Your task to perform on an android device: Clear the shopping cart on ebay.com. Search for "macbook" on ebay.com, select the first entry, add it to the cart, then select checkout. Image 0: 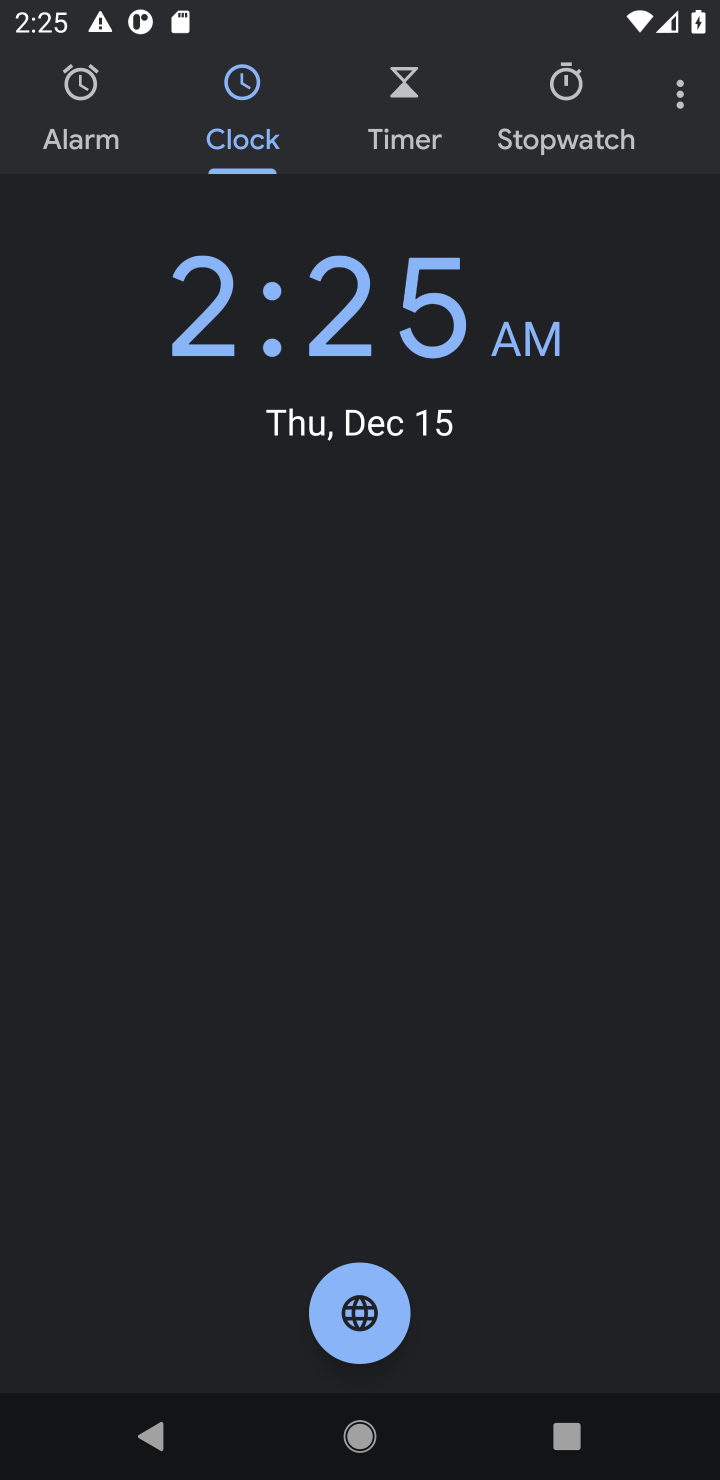
Step 0: press home button
Your task to perform on an android device: Clear the shopping cart on ebay.com. Search for "macbook" on ebay.com, select the first entry, add it to the cart, then select checkout. Image 1: 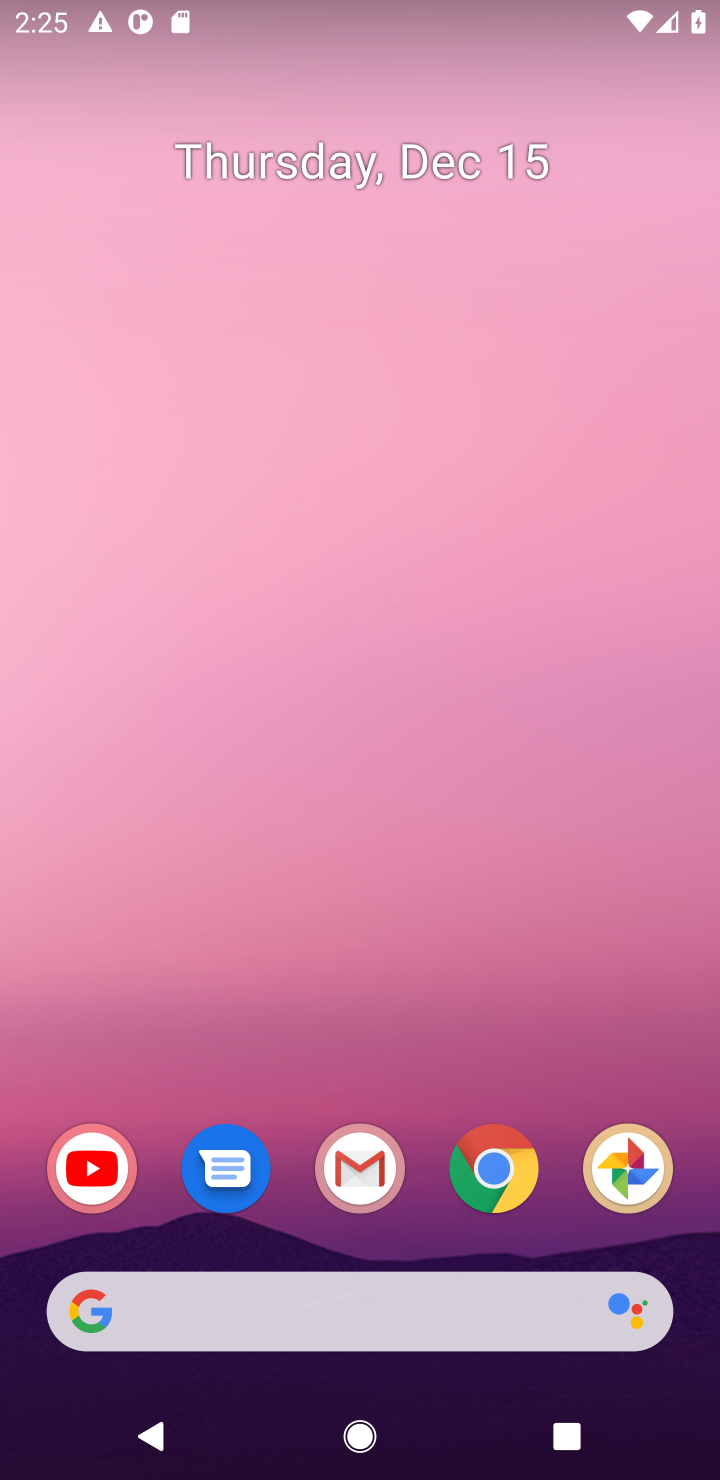
Step 1: click (495, 1170)
Your task to perform on an android device: Clear the shopping cart on ebay.com. Search for "macbook" on ebay.com, select the first entry, add it to the cart, then select checkout. Image 2: 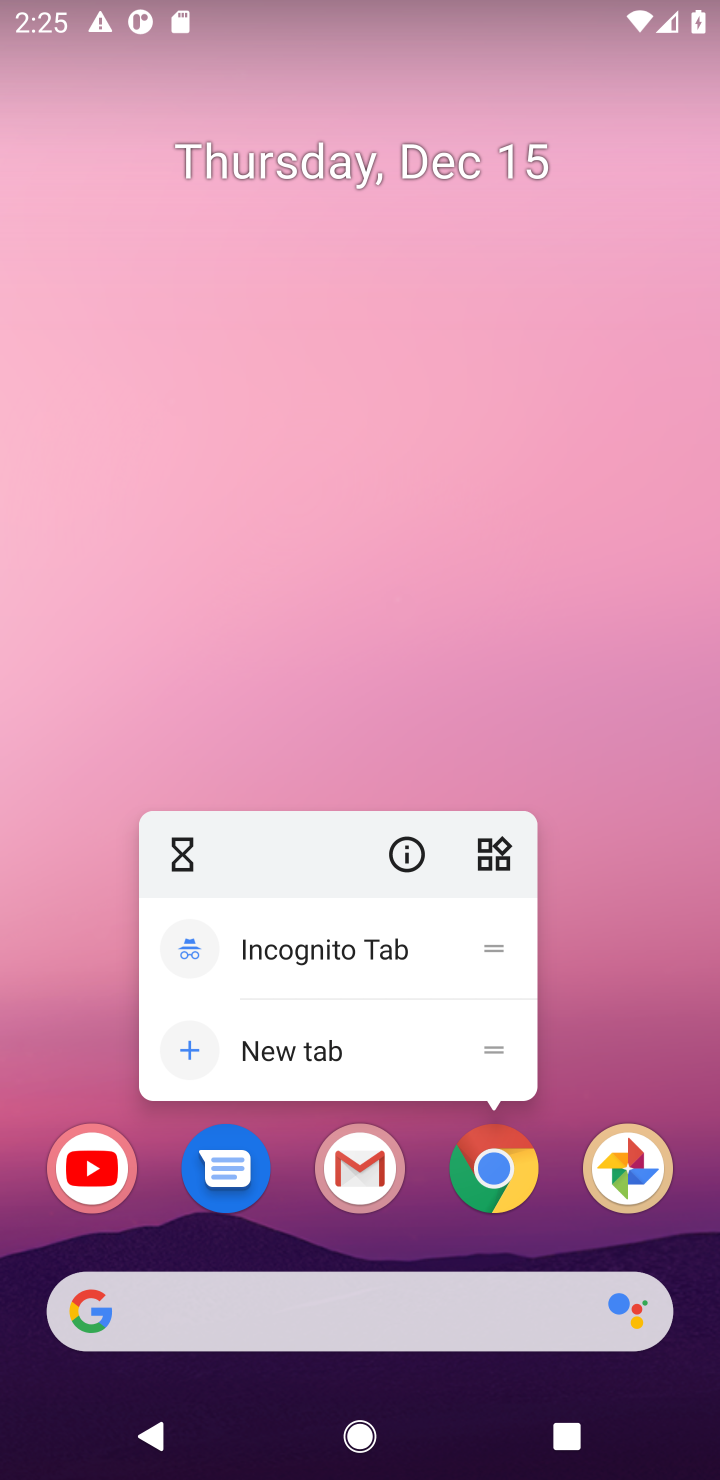
Step 2: click (511, 1144)
Your task to perform on an android device: Clear the shopping cart on ebay.com. Search for "macbook" on ebay.com, select the first entry, add it to the cart, then select checkout. Image 3: 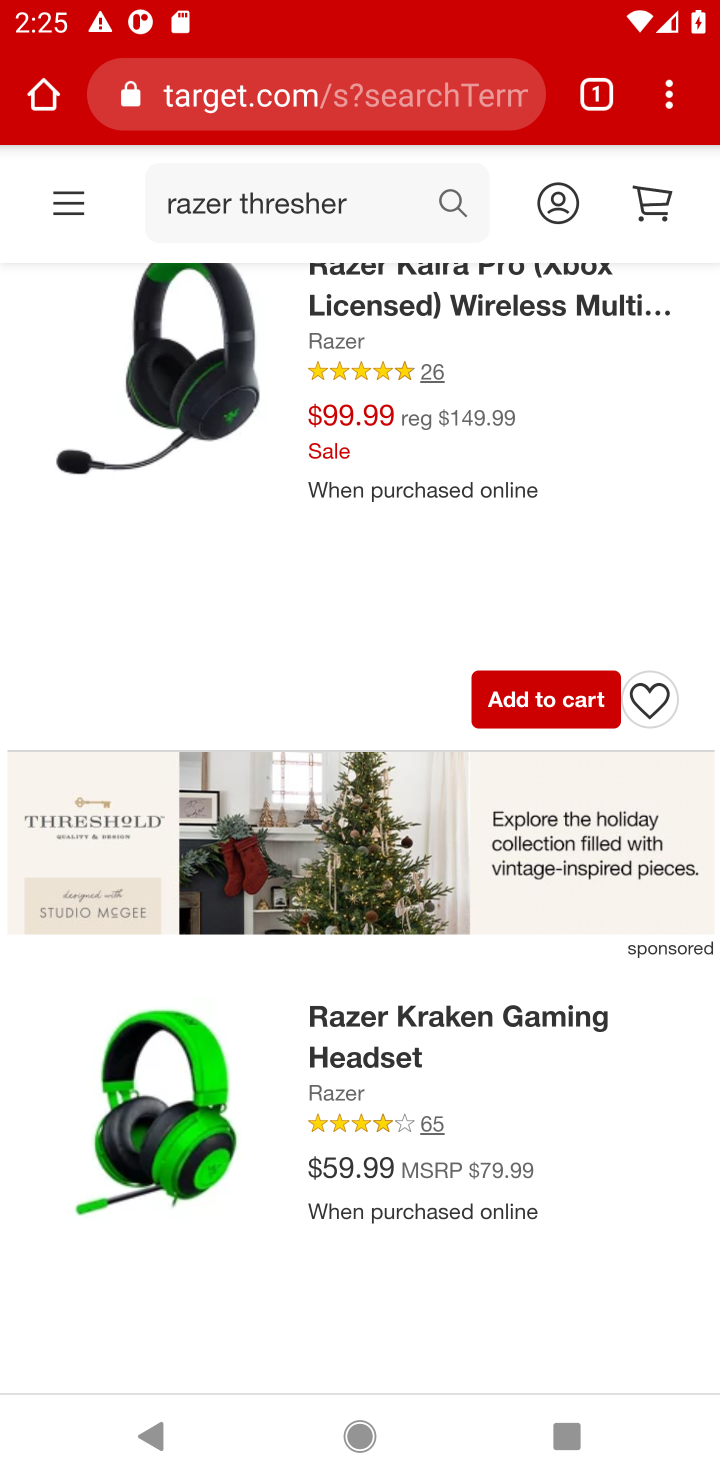
Step 3: click (297, 84)
Your task to perform on an android device: Clear the shopping cart on ebay.com. Search for "macbook" on ebay.com, select the first entry, add it to the cart, then select checkout. Image 4: 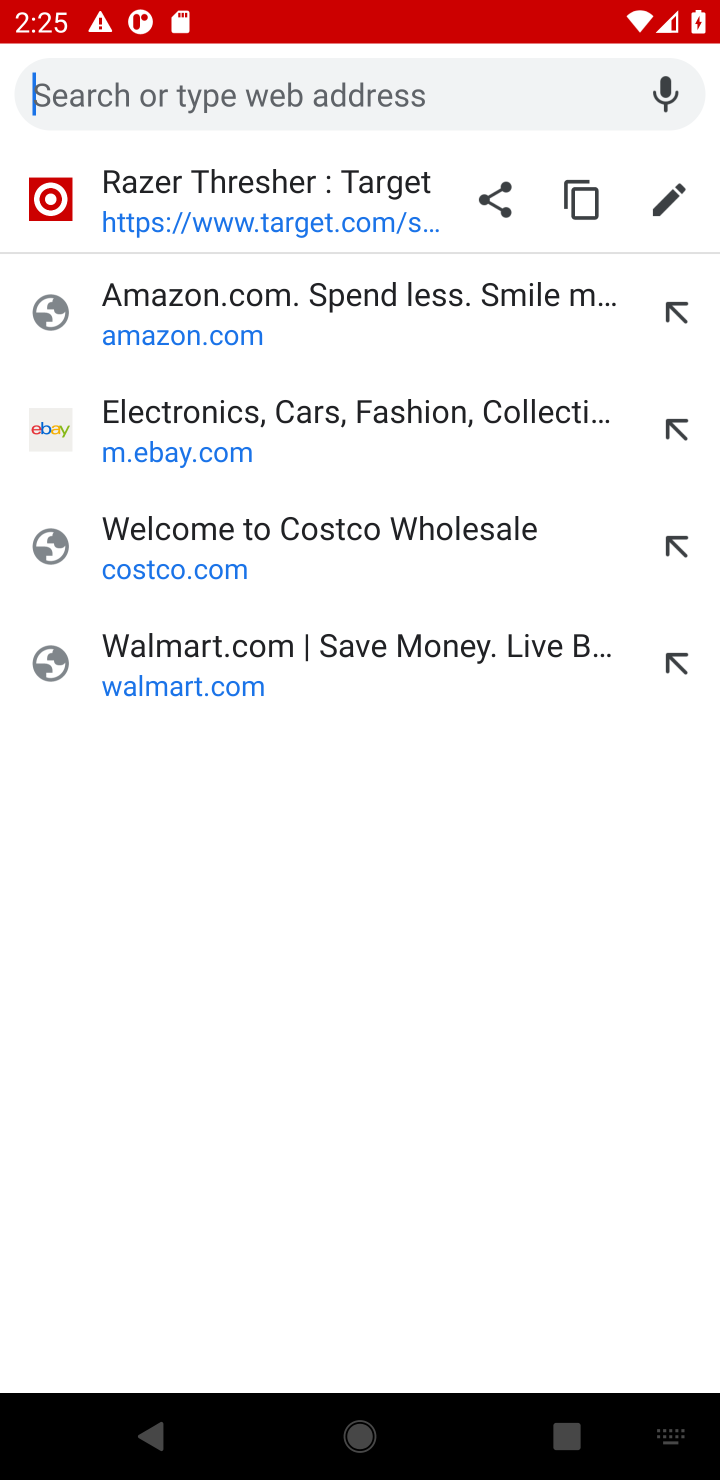
Step 4: press back button
Your task to perform on an android device: Clear the shopping cart on ebay.com. Search for "macbook" on ebay.com, select the first entry, add it to the cart, then select checkout. Image 5: 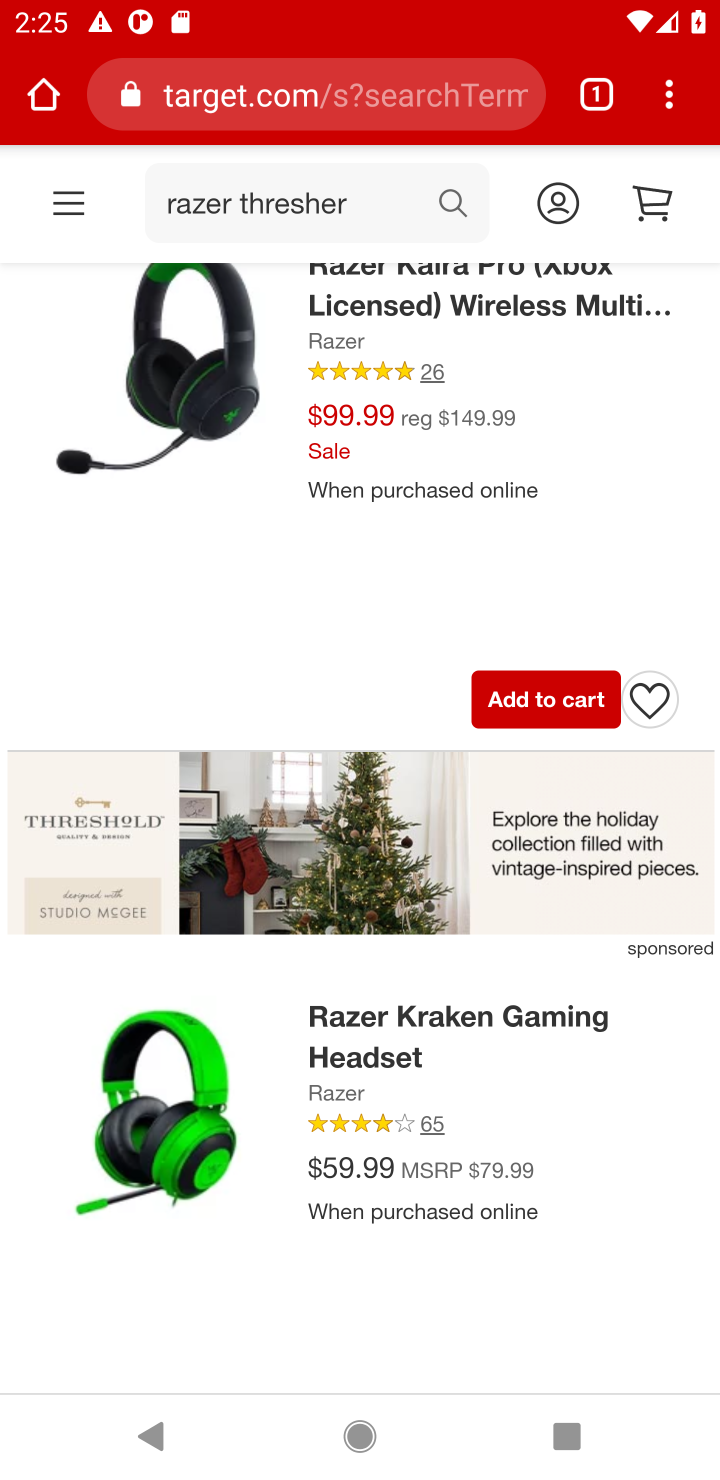
Step 5: click (51, 85)
Your task to perform on an android device: Clear the shopping cart on ebay.com. Search for "macbook" on ebay.com, select the first entry, add it to the cart, then select checkout. Image 6: 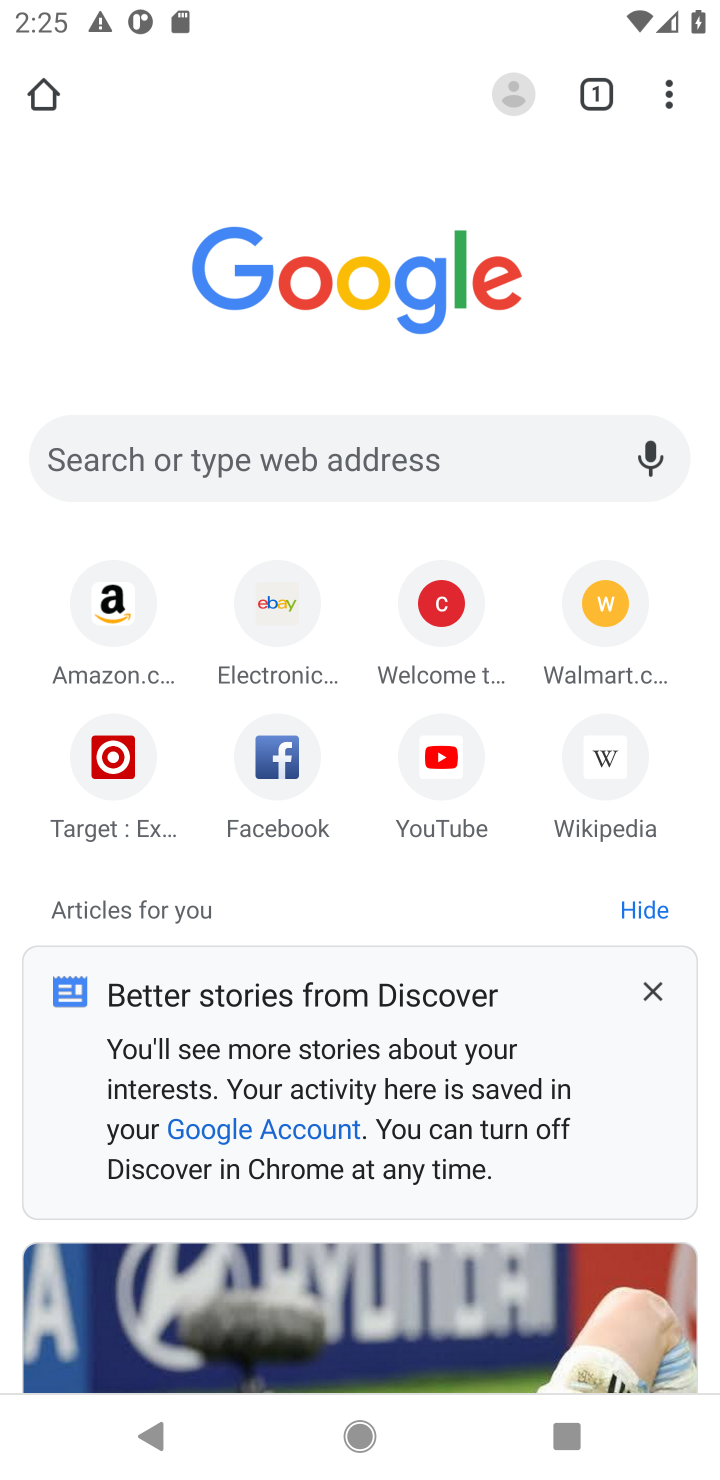
Step 6: click (420, 445)
Your task to perform on an android device: Clear the shopping cart on ebay.com. Search for "macbook" on ebay.com, select the first entry, add it to the cart, then select checkout. Image 7: 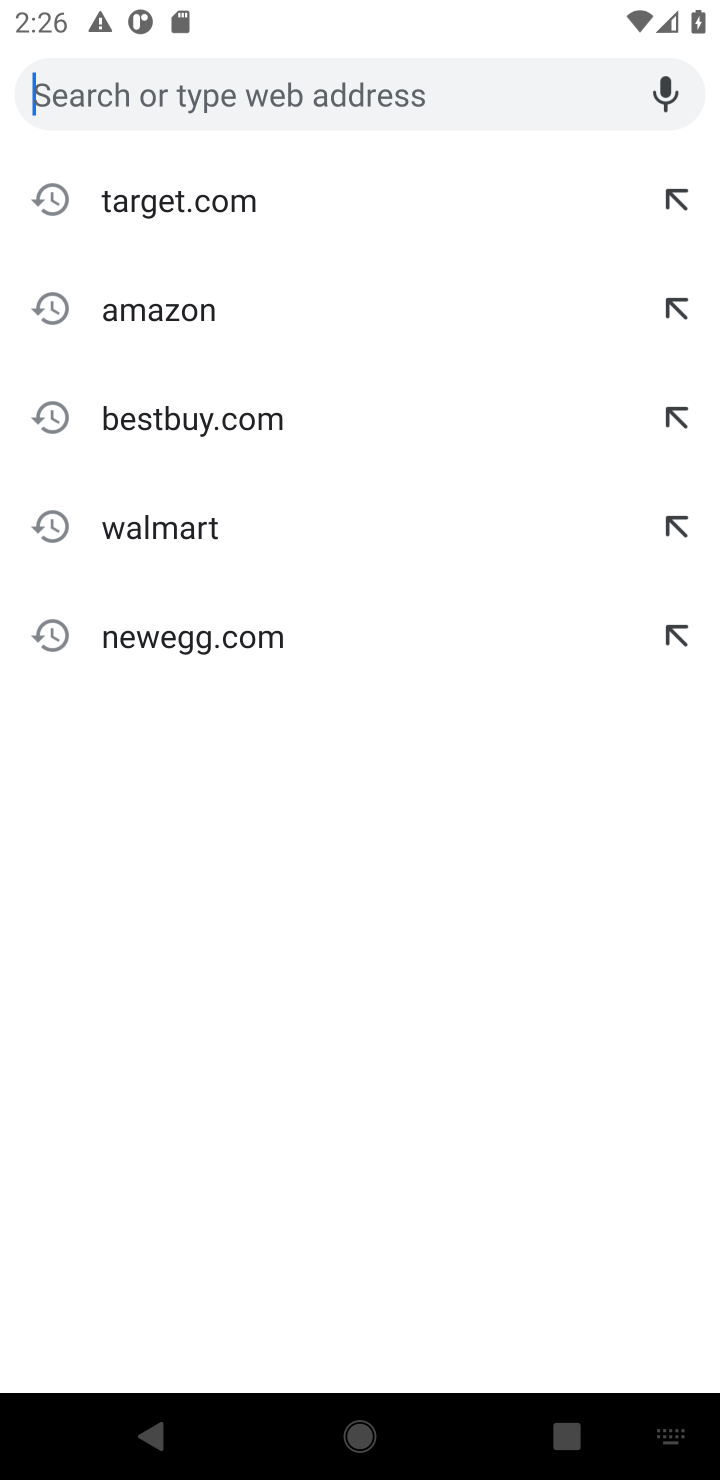
Step 7: press enter
Your task to perform on an android device: Clear the shopping cart on ebay.com. Search for "macbook" on ebay.com, select the first entry, add it to the cart, then select checkout. Image 8: 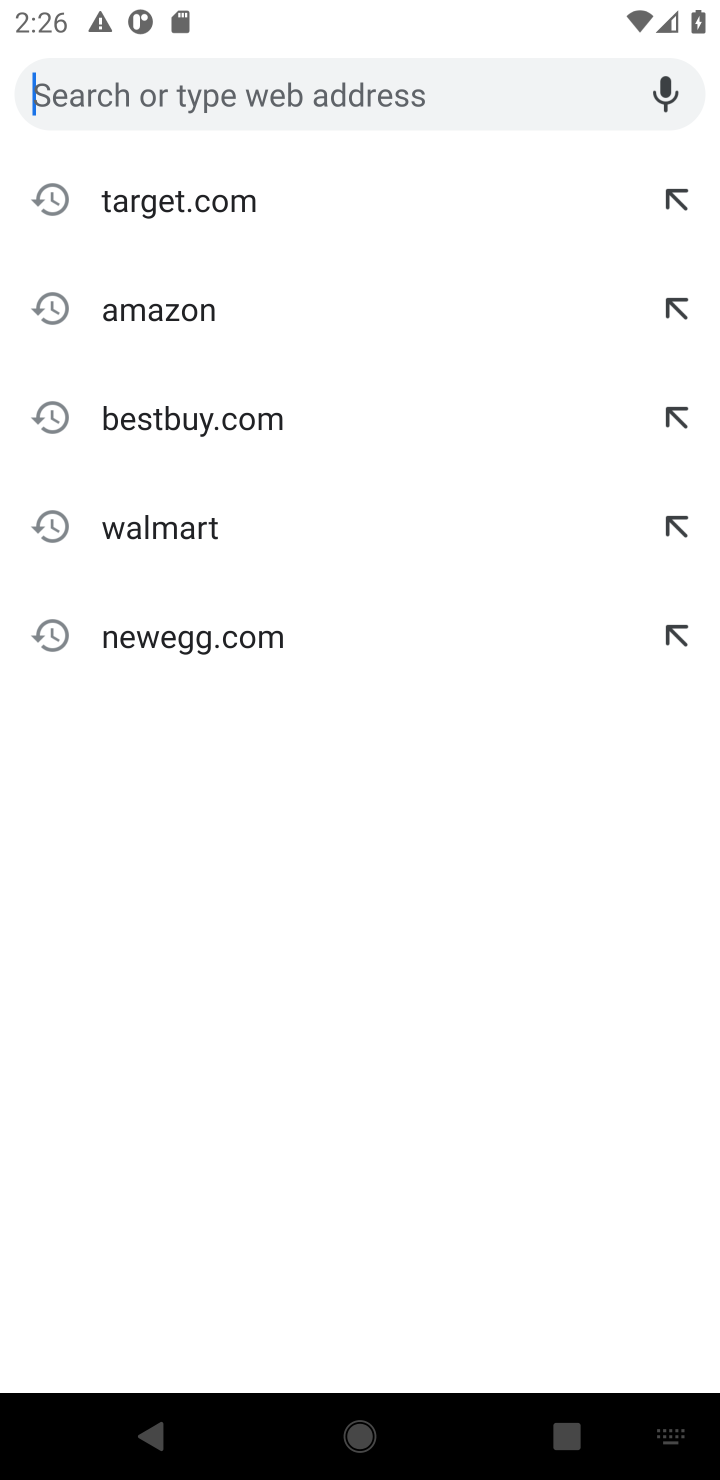
Step 8: type "ebay.com"
Your task to perform on an android device: Clear the shopping cart on ebay.com. Search for "macbook" on ebay.com, select the first entry, add it to the cart, then select checkout. Image 9: 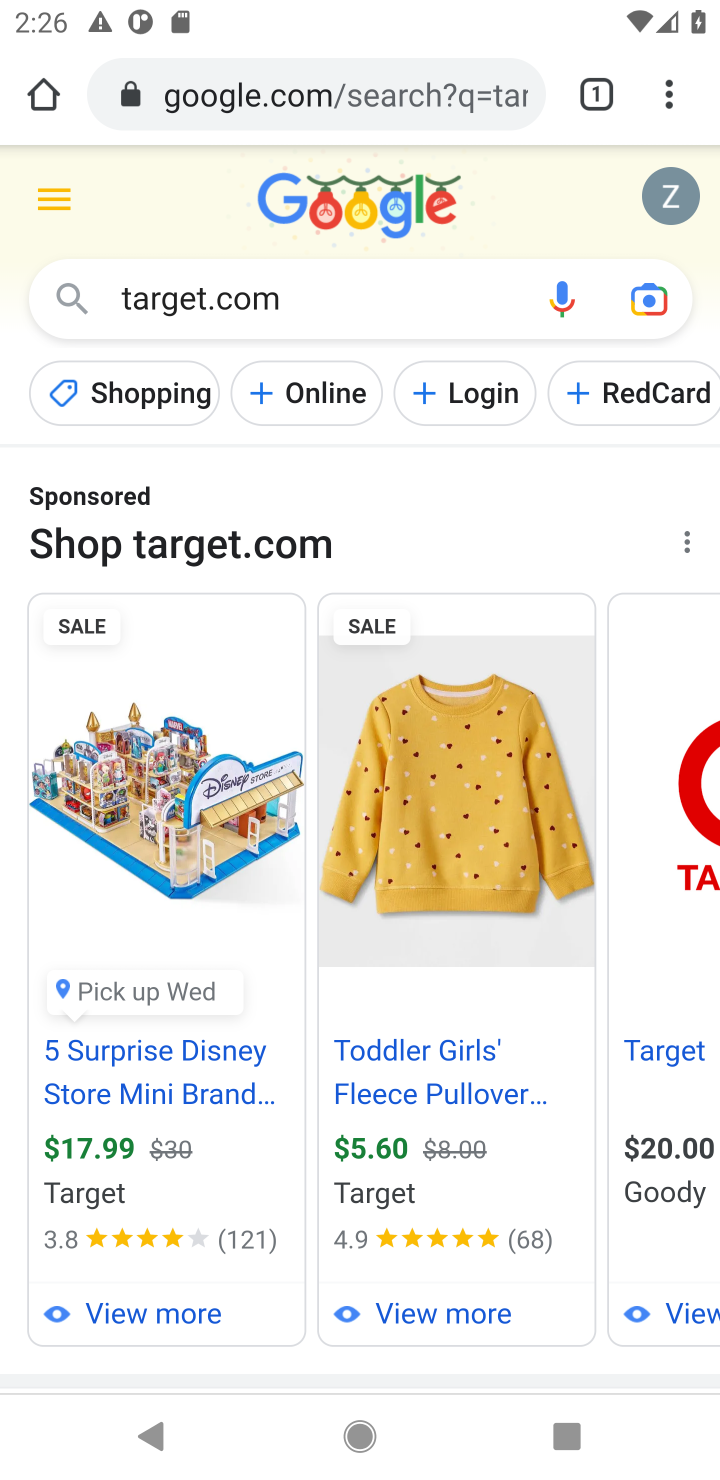
Step 9: click (426, 102)
Your task to perform on an android device: Clear the shopping cart on ebay.com. Search for "macbook" on ebay.com, select the first entry, add it to the cart, then select checkout. Image 10: 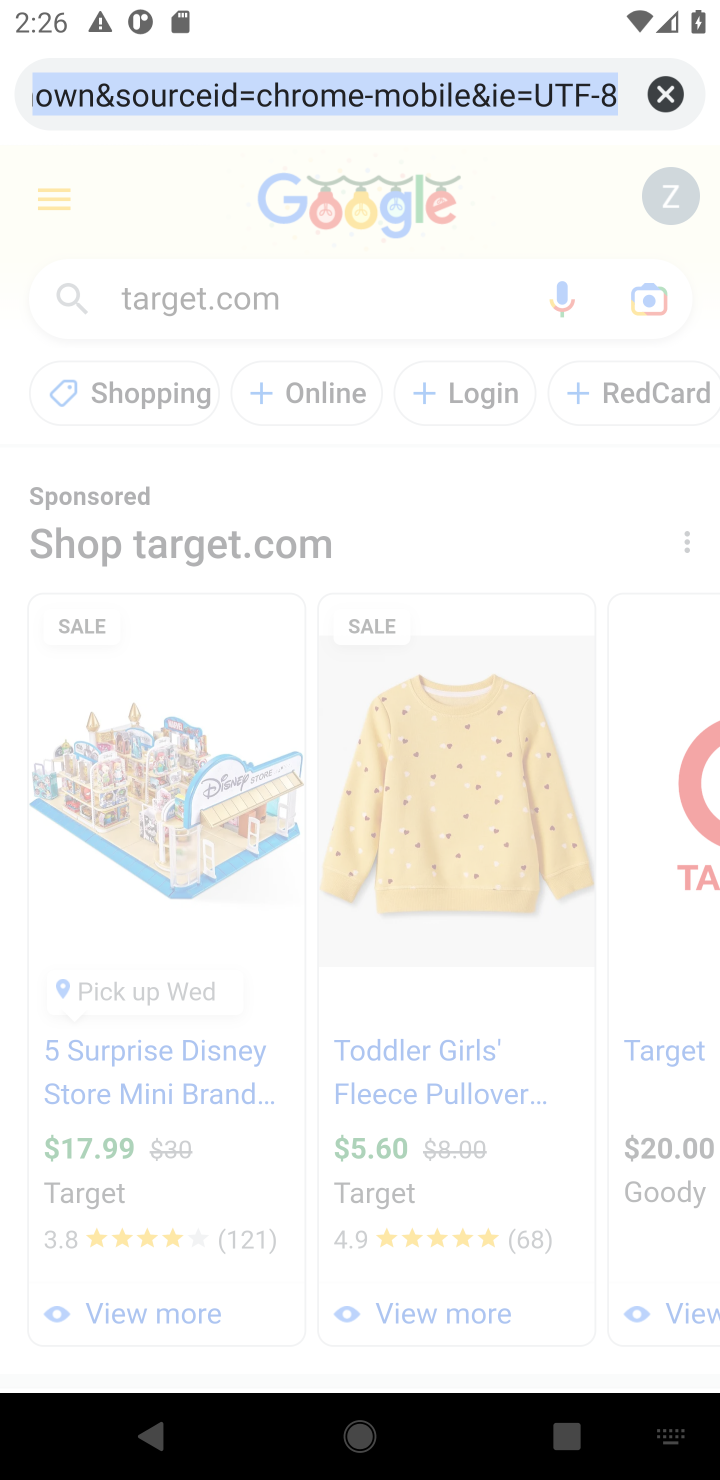
Step 10: click (651, 94)
Your task to perform on an android device: Clear the shopping cart on ebay.com. Search for "macbook" on ebay.com, select the first entry, add it to the cart, then select checkout. Image 11: 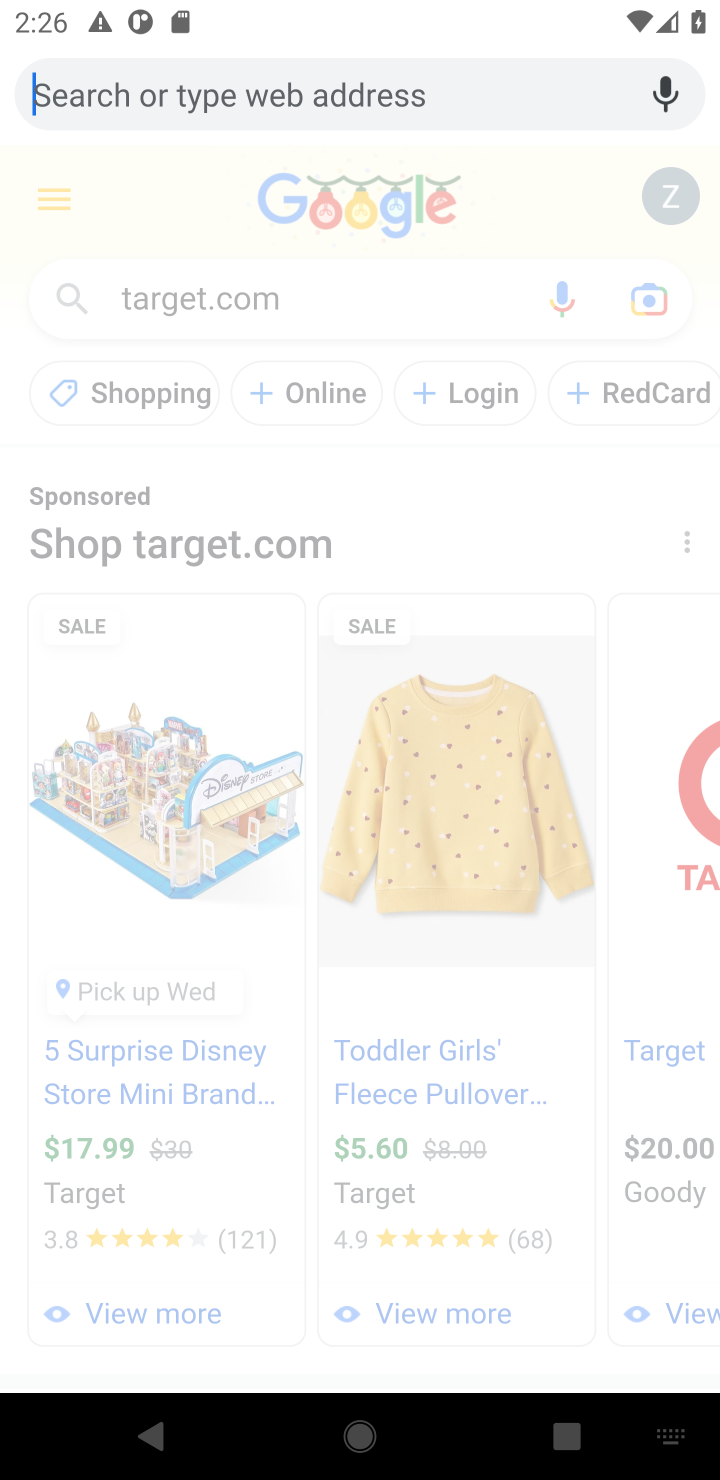
Step 11: press enter
Your task to perform on an android device: Clear the shopping cart on ebay.com. Search for "macbook" on ebay.com, select the first entry, add it to the cart, then select checkout. Image 12: 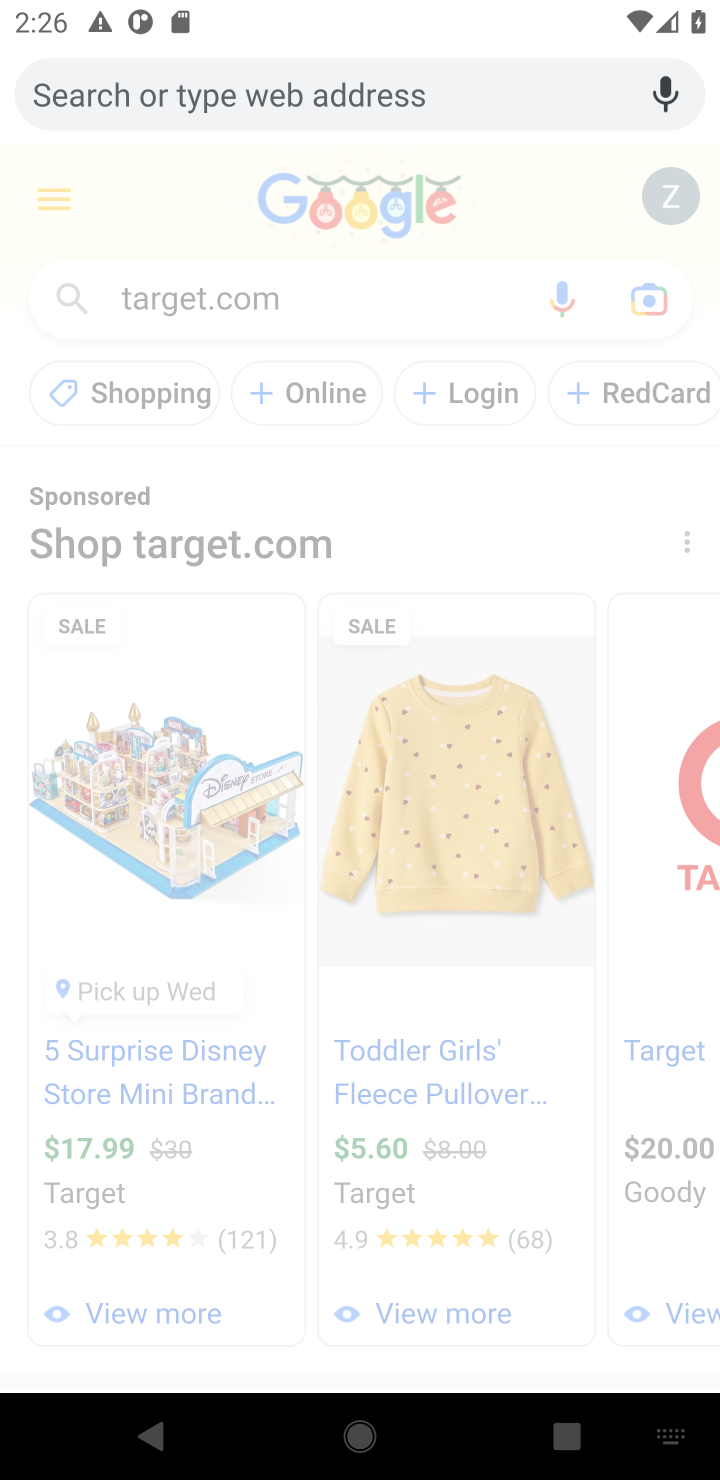
Step 12: type "ebay.com"
Your task to perform on an android device: Clear the shopping cart on ebay.com. Search for "macbook" on ebay.com, select the first entry, add it to the cart, then select checkout. Image 13: 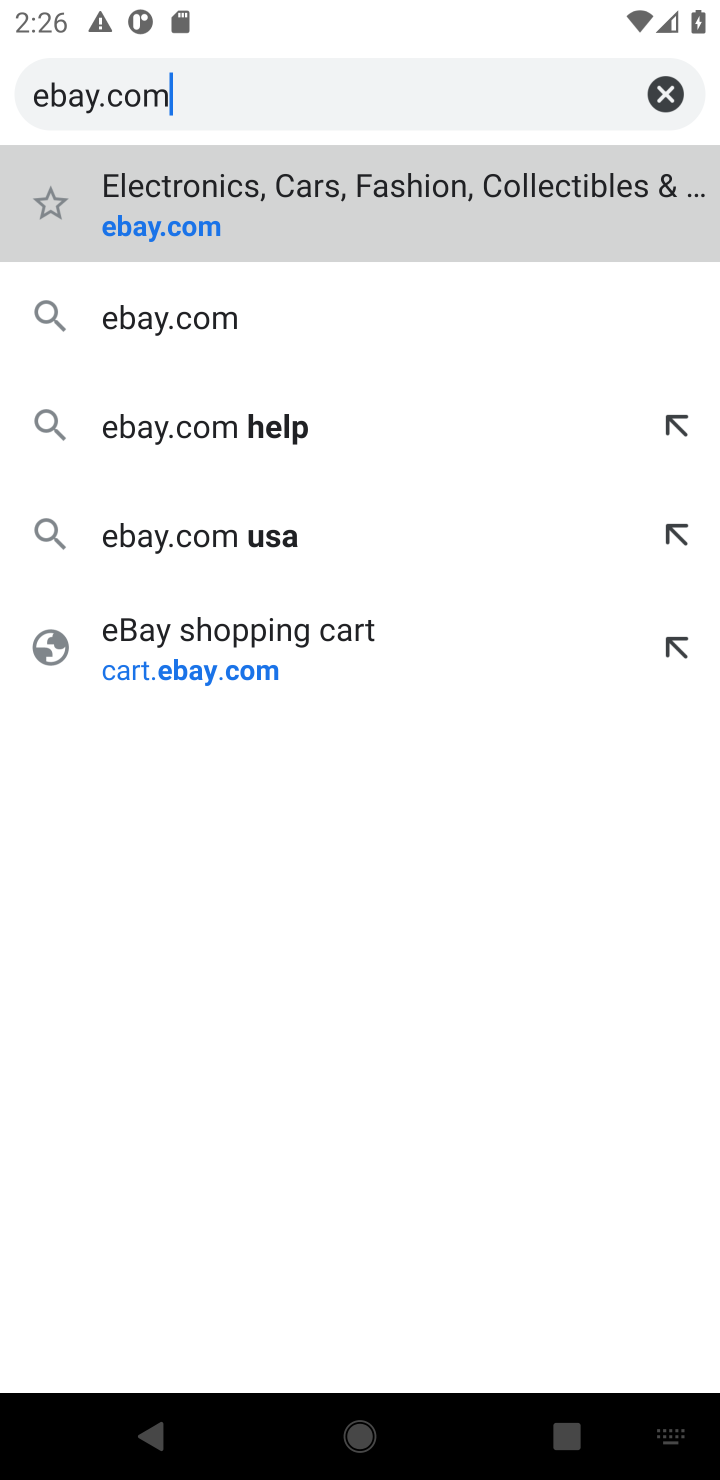
Step 13: click (177, 299)
Your task to perform on an android device: Clear the shopping cart on ebay.com. Search for "macbook" on ebay.com, select the first entry, add it to the cart, then select checkout. Image 14: 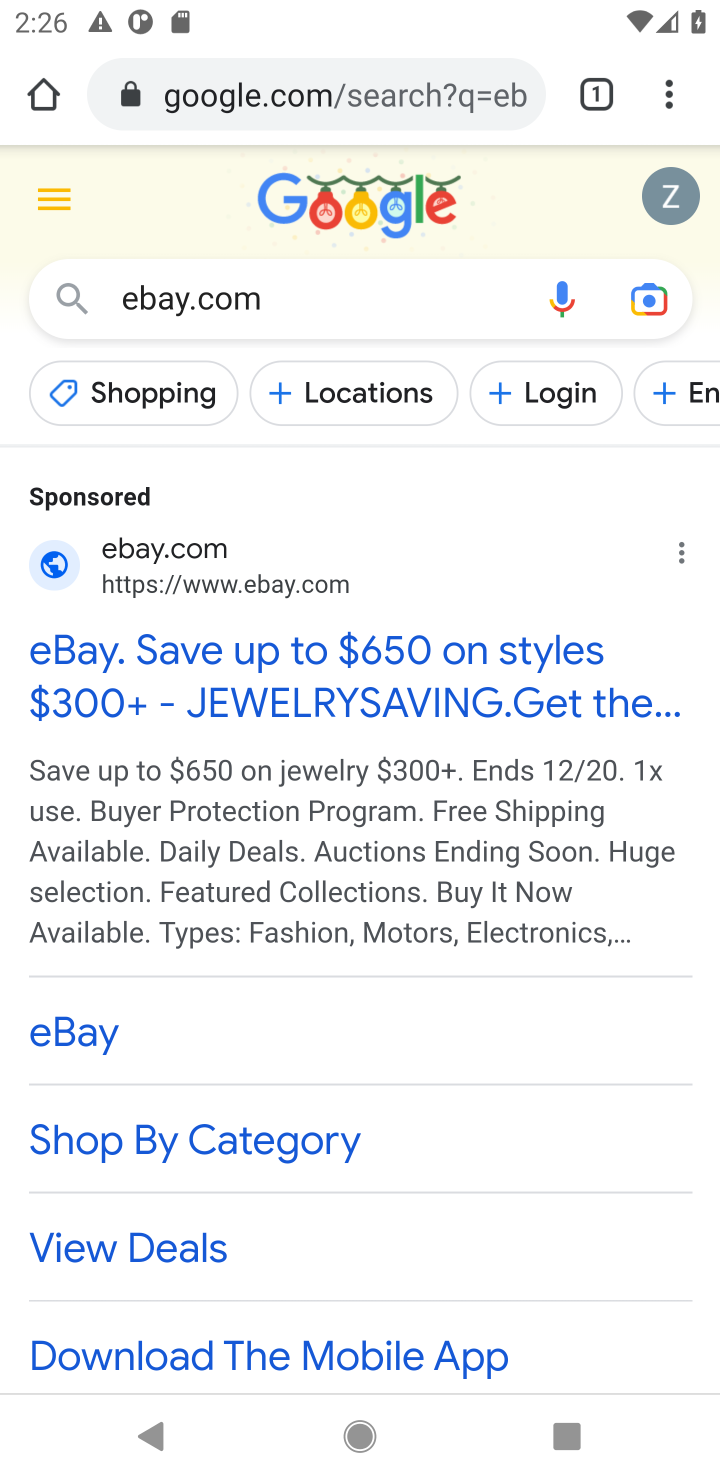
Step 14: click (263, 580)
Your task to perform on an android device: Clear the shopping cart on ebay.com. Search for "macbook" on ebay.com, select the first entry, add it to the cart, then select checkout. Image 15: 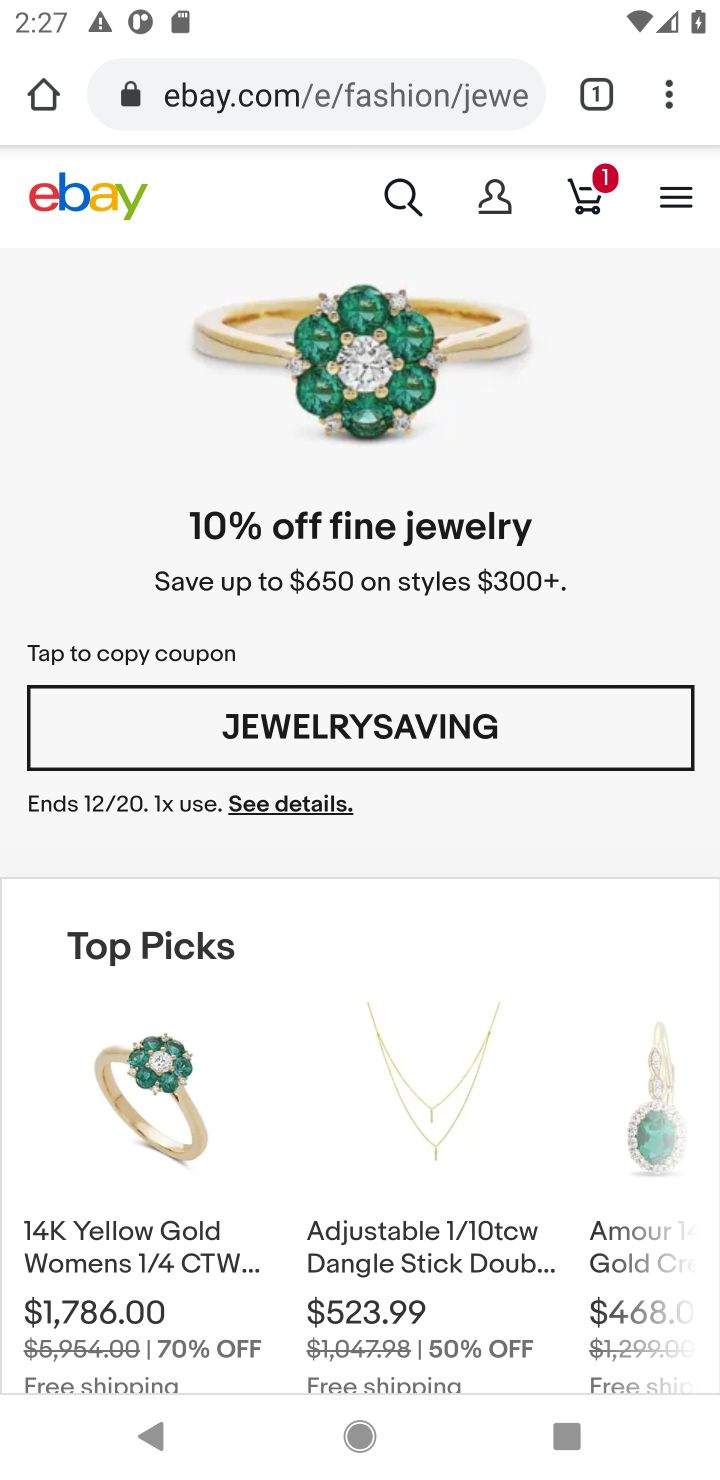
Step 15: click (587, 212)
Your task to perform on an android device: Clear the shopping cart on ebay.com. Search for "macbook" on ebay.com, select the first entry, add it to the cart, then select checkout. Image 16: 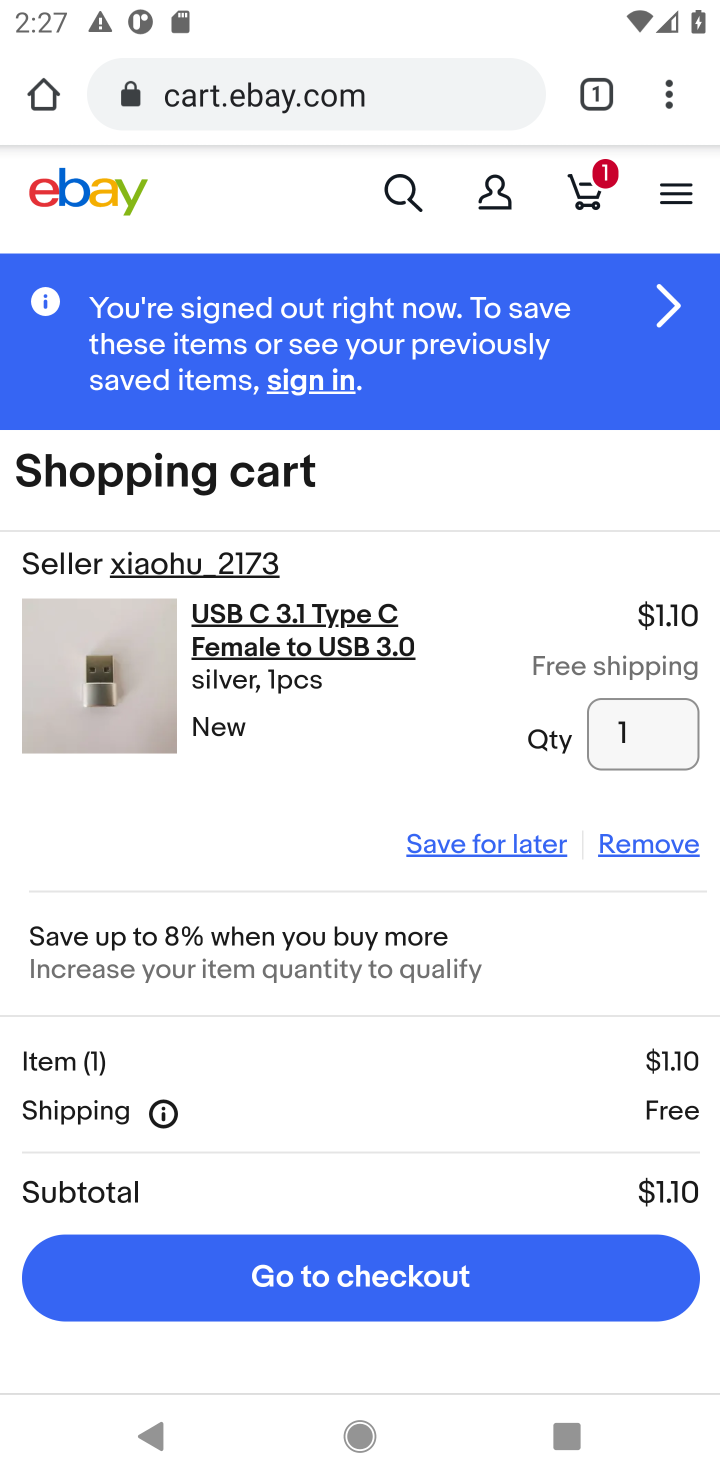
Step 16: click (656, 846)
Your task to perform on an android device: Clear the shopping cart on ebay.com. Search for "macbook" on ebay.com, select the first entry, add it to the cart, then select checkout. Image 17: 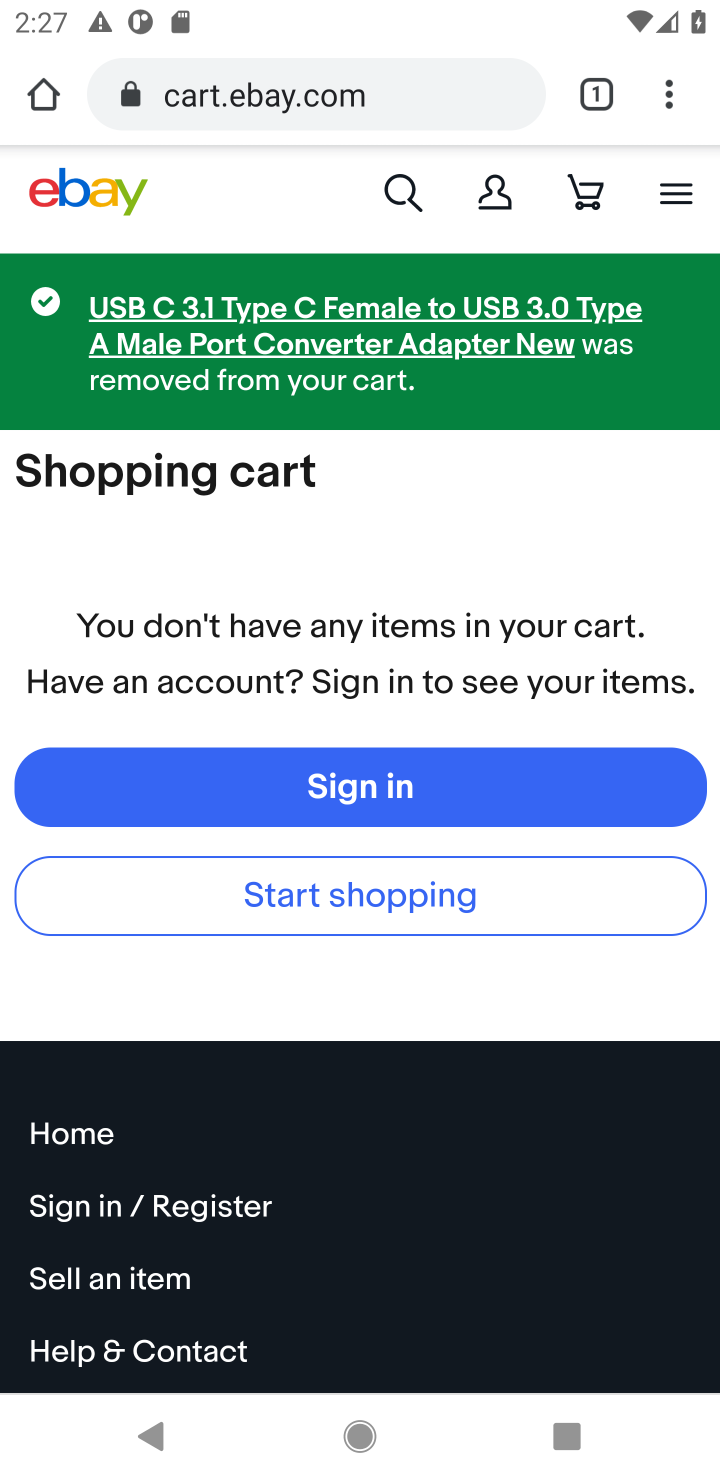
Step 17: click (406, 201)
Your task to perform on an android device: Clear the shopping cart on ebay.com. Search for "macbook" on ebay.com, select the first entry, add it to the cart, then select checkout. Image 18: 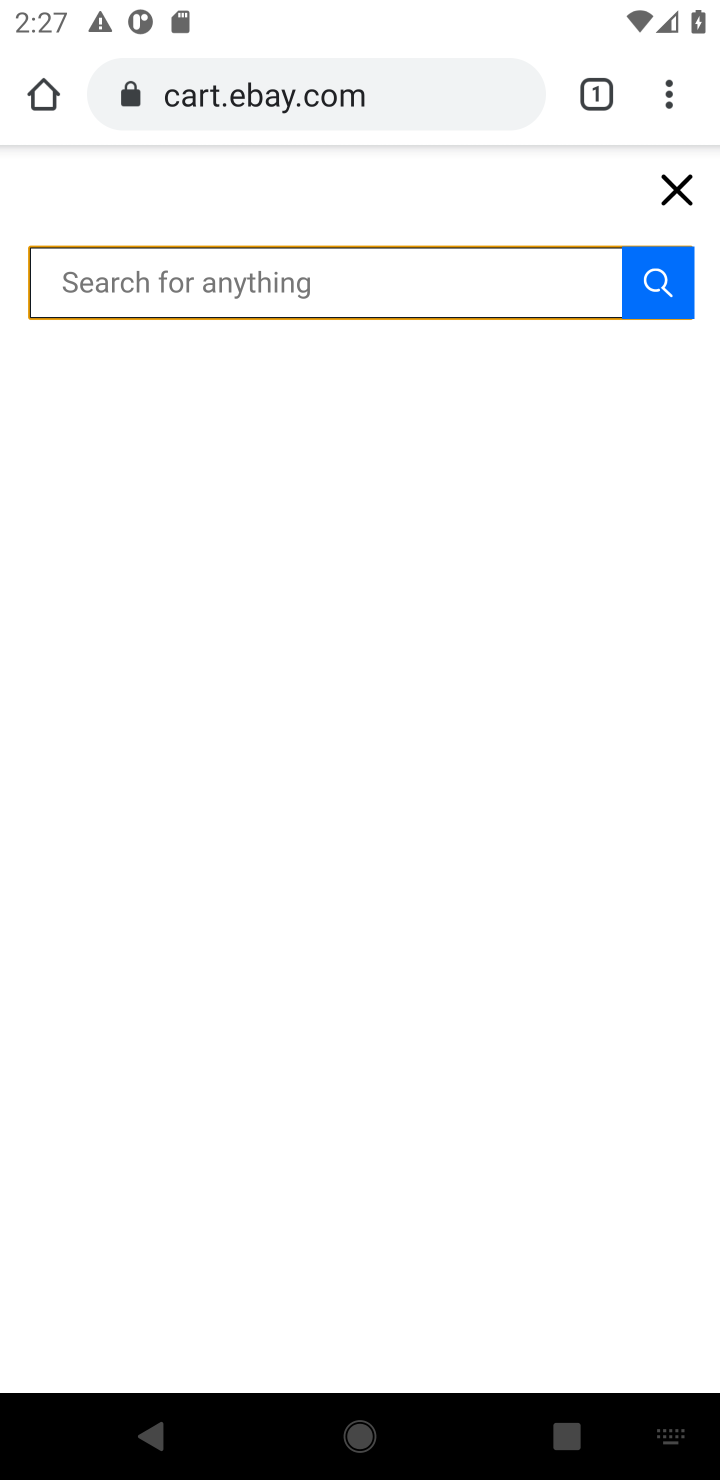
Step 18: type "macbook"
Your task to perform on an android device: Clear the shopping cart on ebay.com. Search for "macbook" on ebay.com, select the first entry, add it to the cart, then select checkout. Image 19: 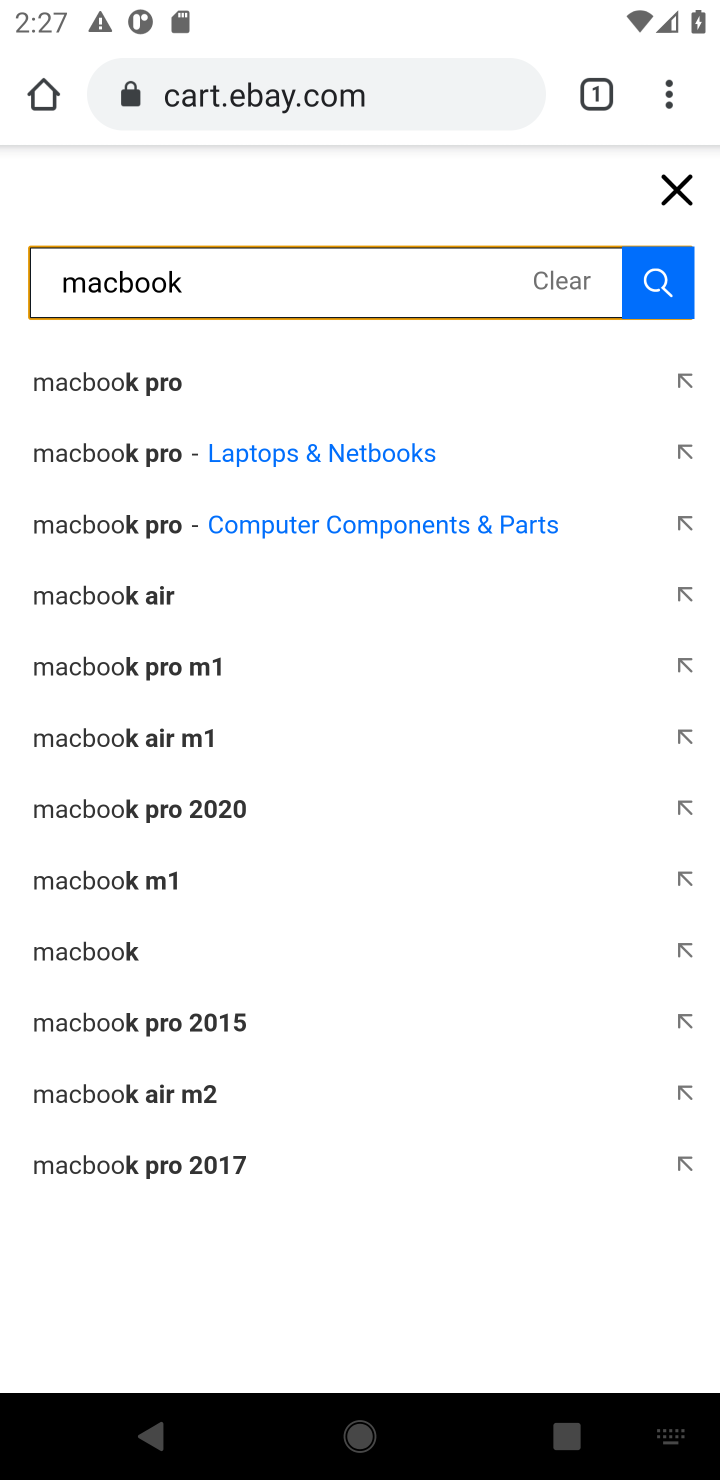
Step 19: click (117, 960)
Your task to perform on an android device: Clear the shopping cart on ebay.com. Search for "macbook" on ebay.com, select the first entry, add it to the cart, then select checkout. Image 20: 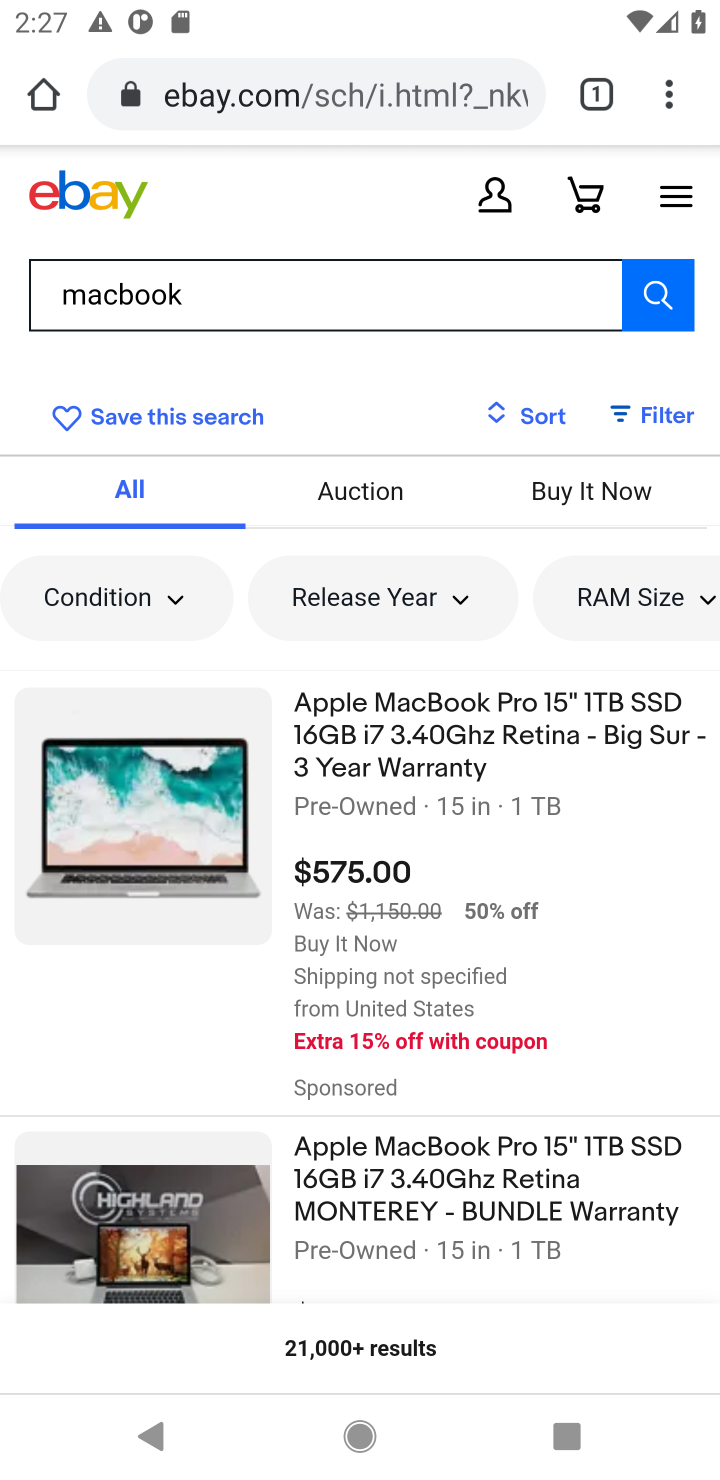
Step 20: click (173, 836)
Your task to perform on an android device: Clear the shopping cart on ebay.com. Search for "macbook" on ebay.com, select the first entry, add it to the cart, then select checkout. Image 21: 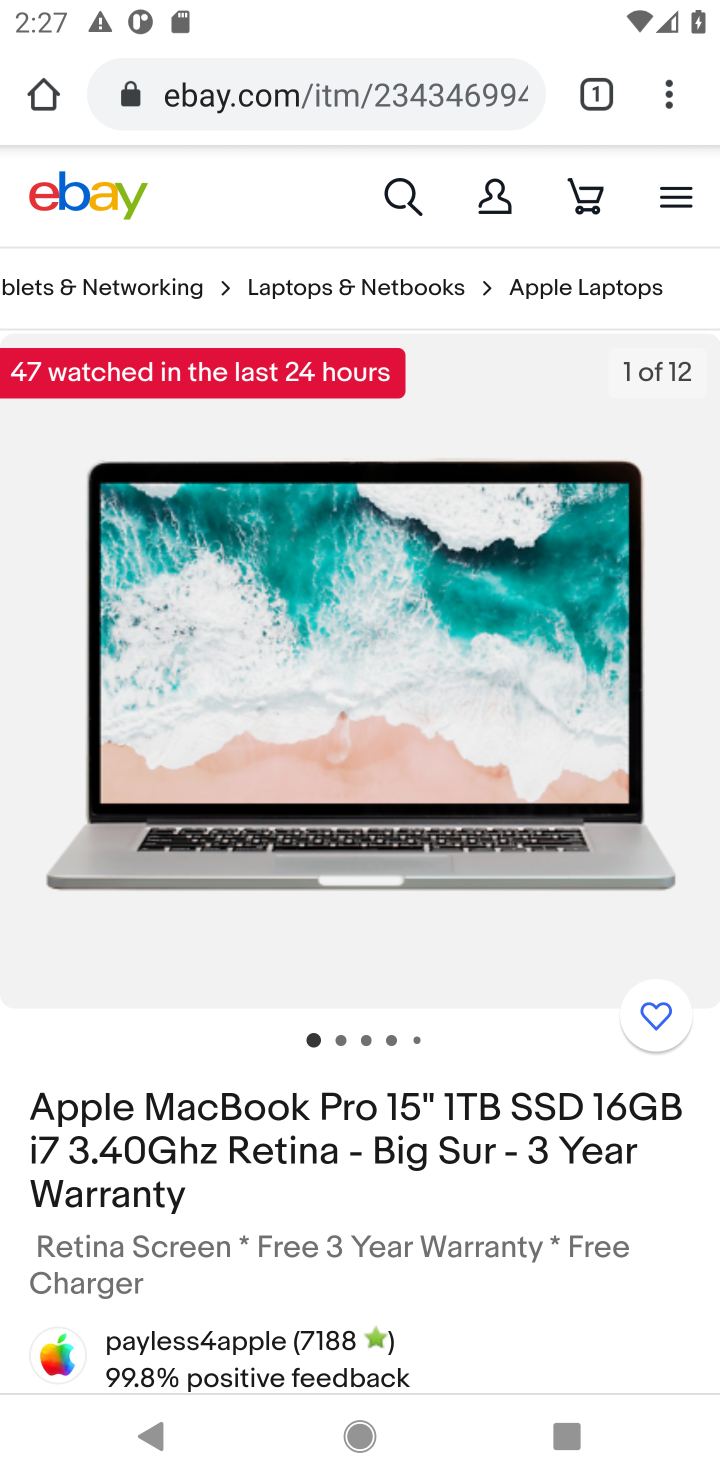
Step 21: drag from (507, 1169) to (403, 680)
Your task to perform on an android device: Clear the shopping cart on ebay.com. Search for "macbook" on ebay.com, select the first entry, add it to the cart, then select checkout. Image 22: 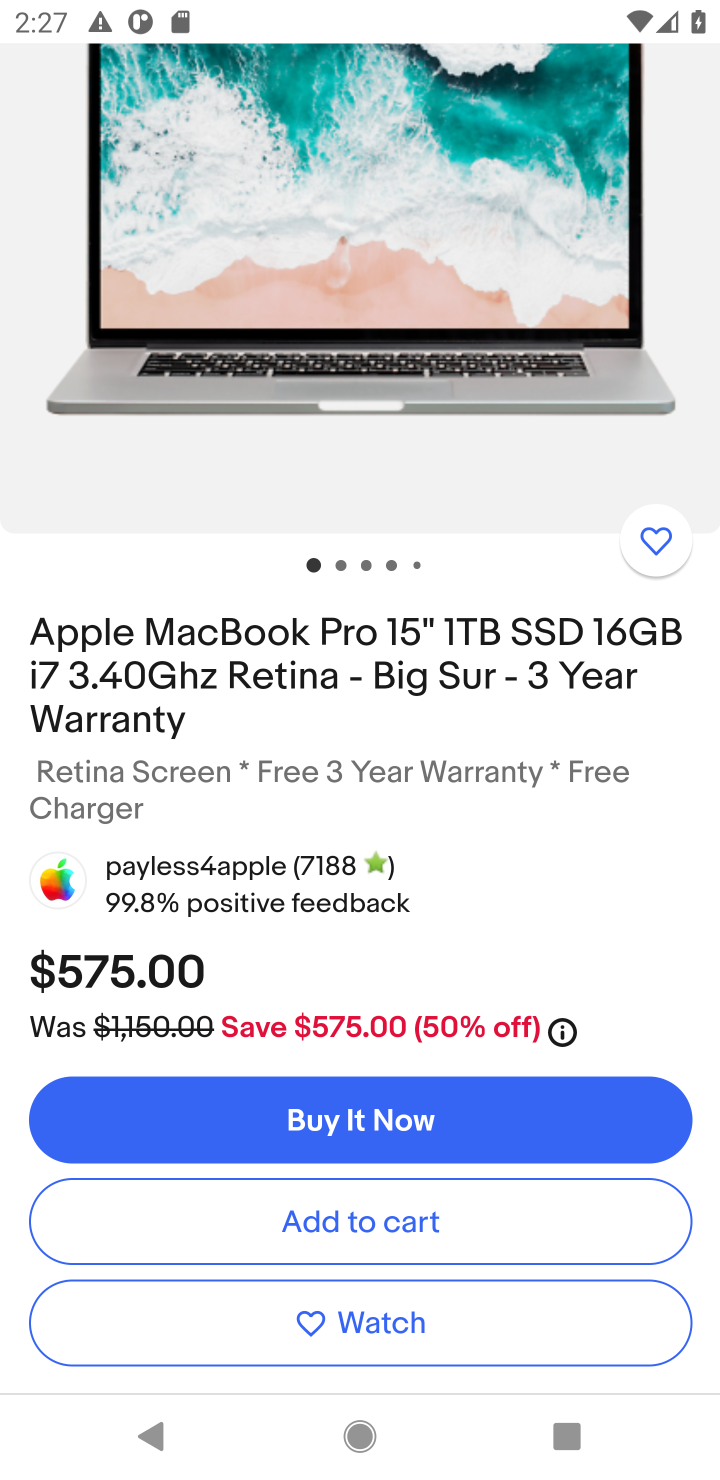
Step 22: click (360, 1204)
Your task to perform on an android device: Clear the shopping cart on ebay.com. Search for "macbook" on ebay.com, select the first entry, add it to the cart, then select checkout. Image 23: 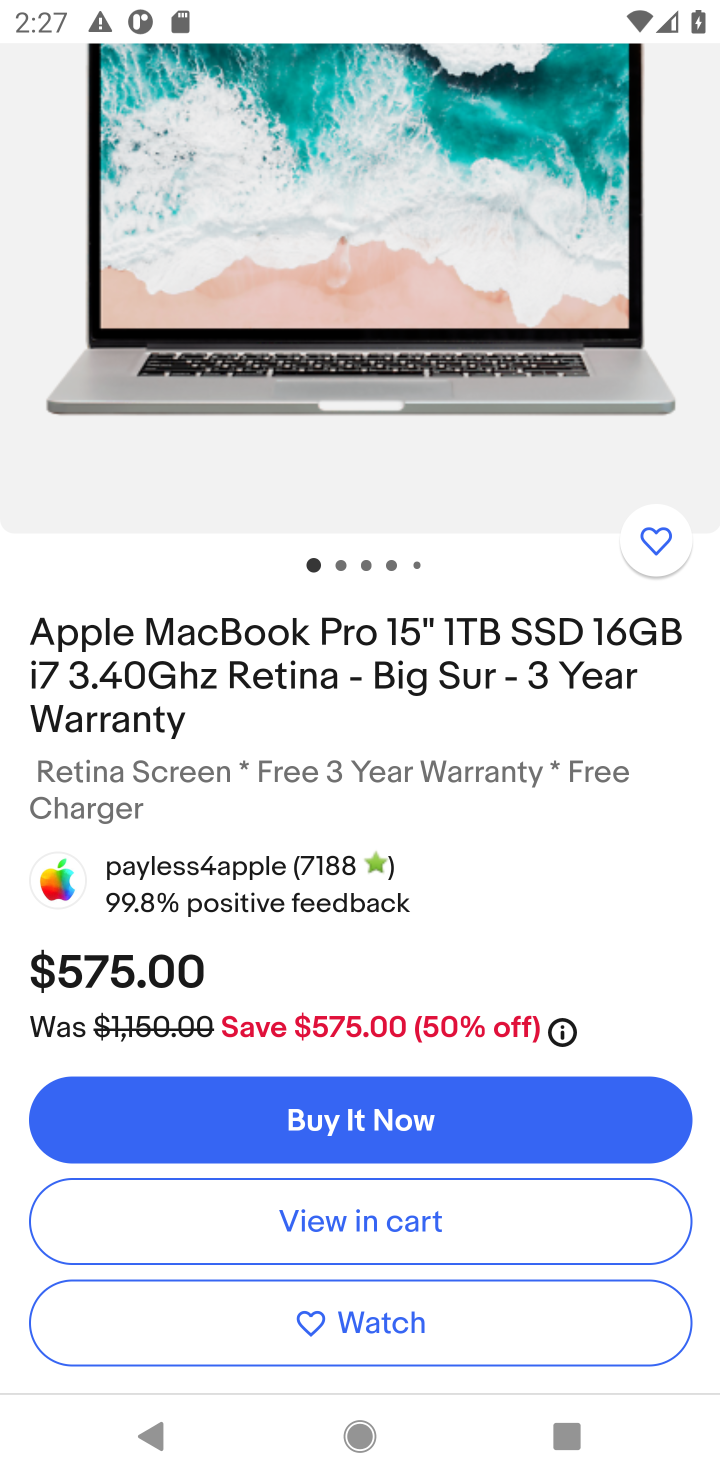
Step 23: click (357, 1213)
Your task to perform on an android device: Clear the shopping cart on ebay.com. Search for "macbook" on ebay.com, select the first entry, add it to the cart, then select checkout. Image 24: 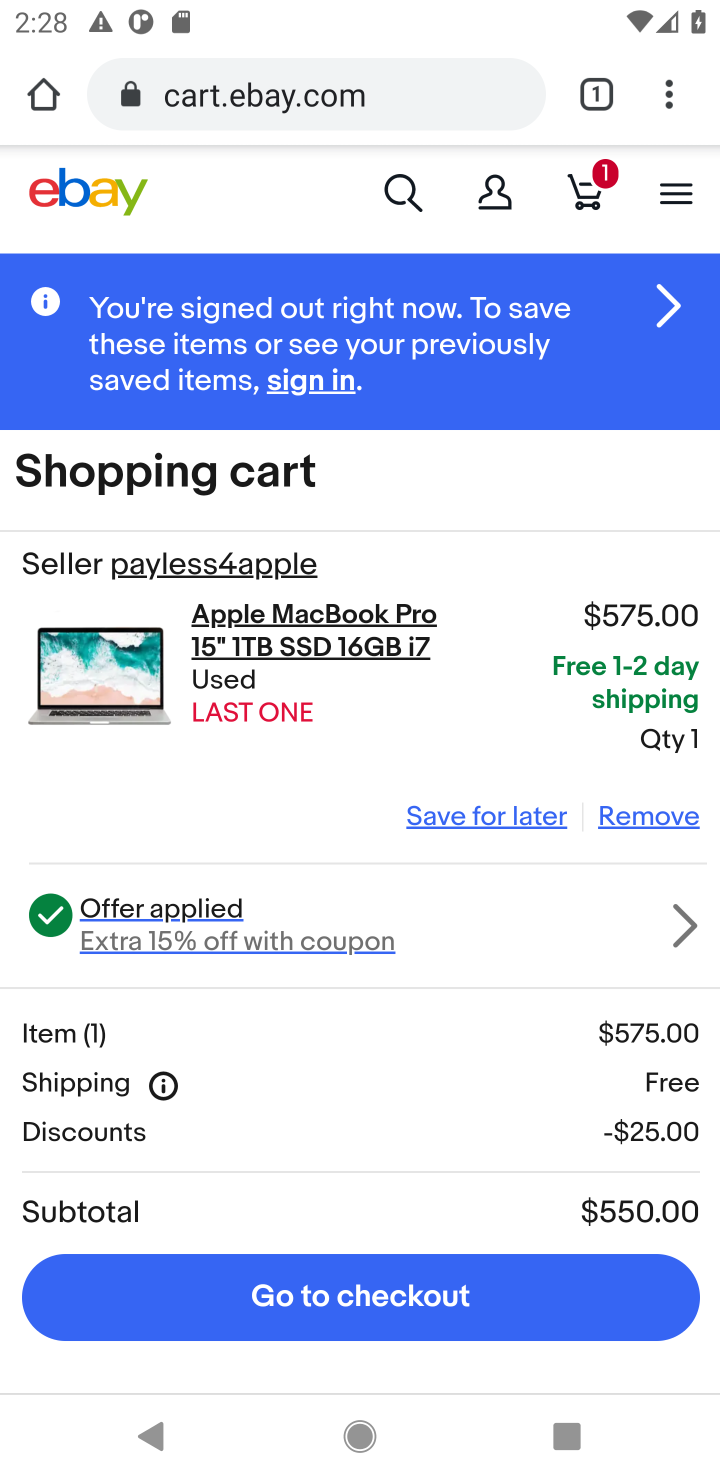
Step 24: click (432, 1296)
Your task to perform on an android device: Clear the shopping cart on ebay.com. Search for "macbook" on ebay.com, select the first entry, add it to the cart, then select checkout. Image 25: 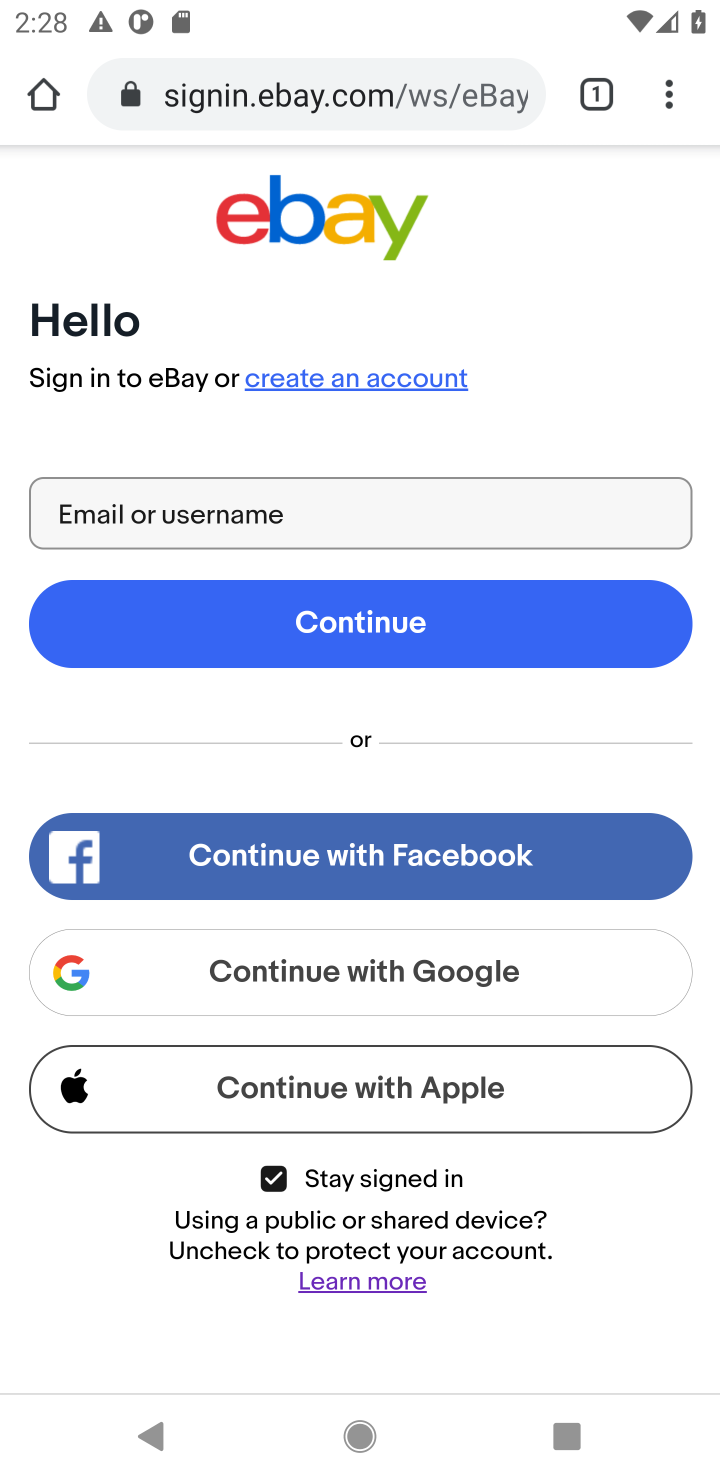
Step 25: task complete